Your task to perform on an android device: turn off sleep mode Image 0: 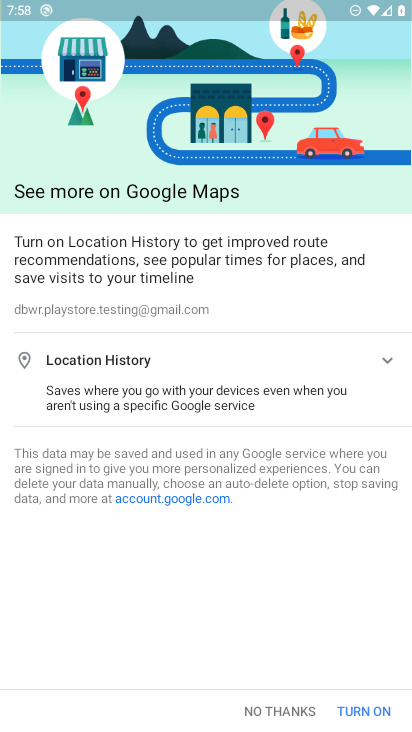
Step 0: press home button
Your task to perform on an android device: turn off sleep mode Image 1: 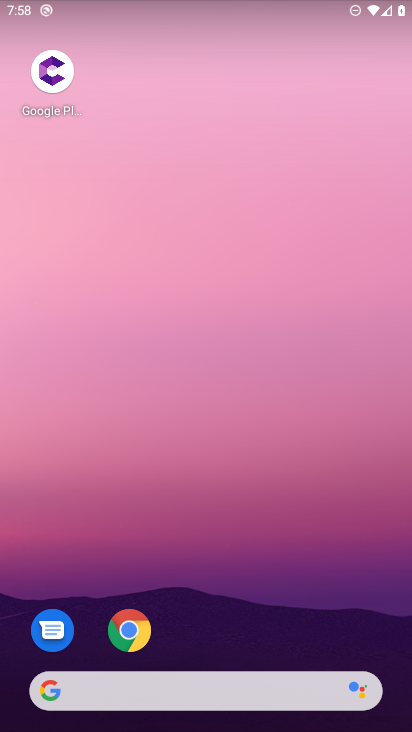
Step 1: drag from (294, 650) to (314, 340)
Your task to perform on an android device: turn off sleep mode Image 2: 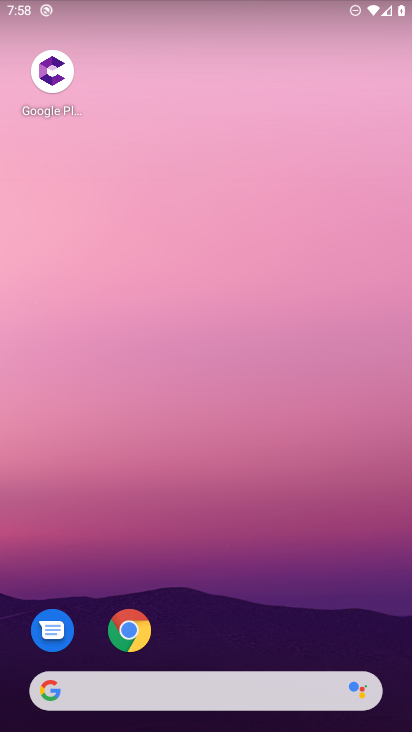
Step 2: drag from (194, 622) to (248, 300)
Your task to perform on an android device: turn off sleep mode Image 3: 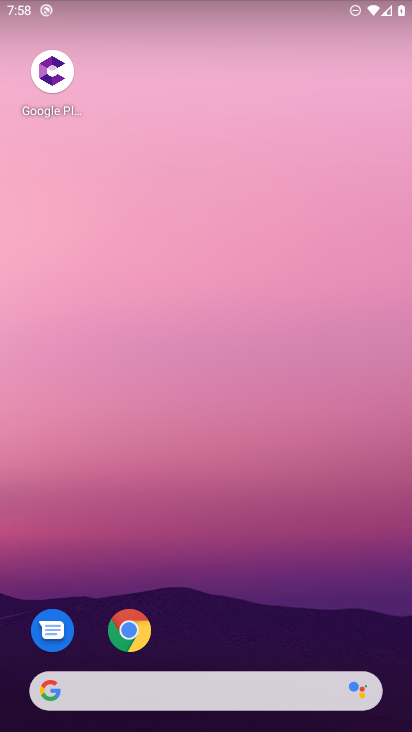
Step 3: drag from (135, 680) to (238, 105)
Your task to perform on an android device: turn off sleep mode Image 4: 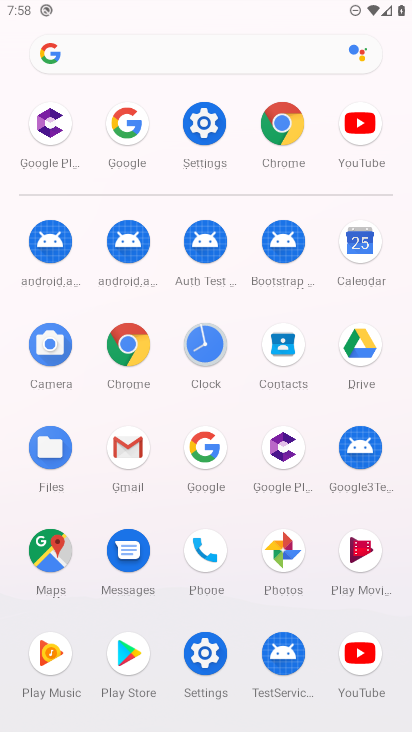
Step 4: click (191, 125)
Your task to perform on an android device: turn off sleep mode Image 5: 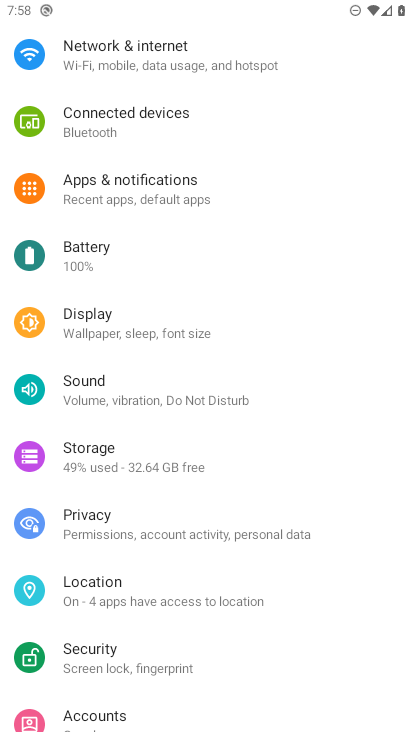
Step 5: click (168, 334)
Your task to perform on an android device: turn off sleep mode Image 6: 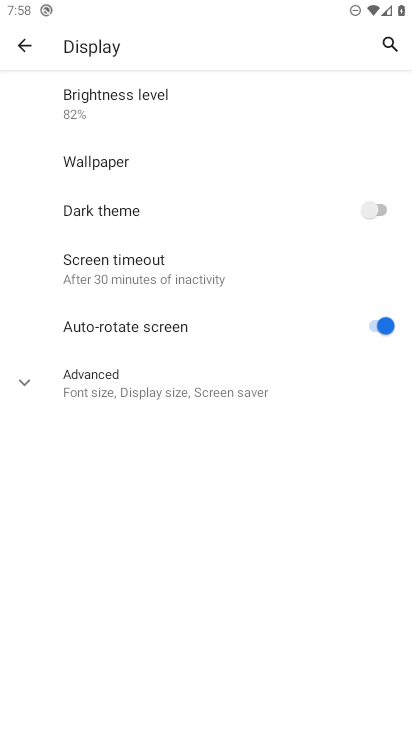
Step 6: click (158, 393)
Your task to perform on an android device: turn off sleep mode Image 7: 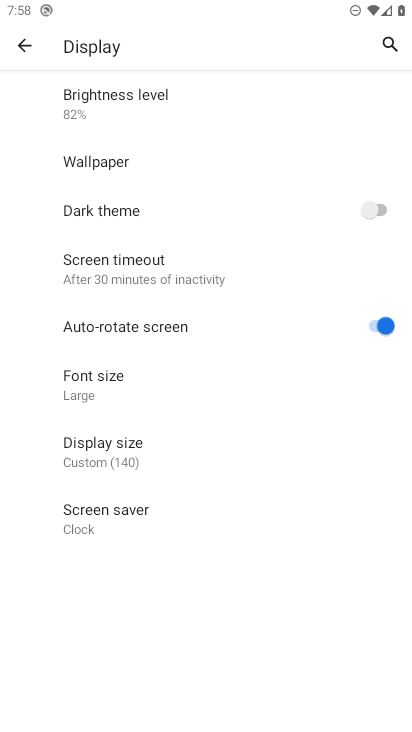
Step 7: click (122, 274)
Your task to perform on an android device: turn off sleep mode Image 8: 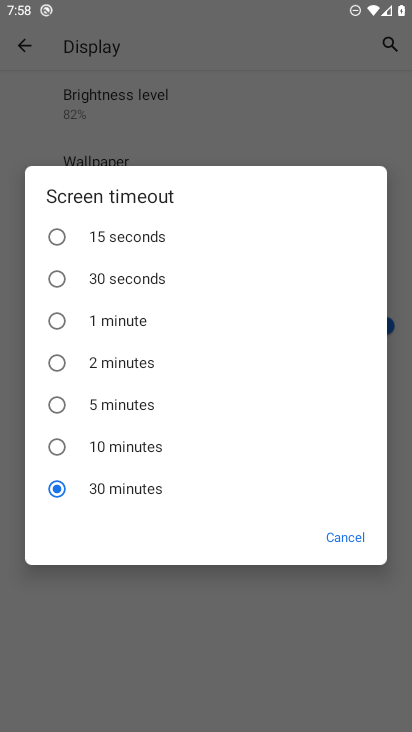
Step 8: click (122, 274)
Your task to perform on an android device: turn off sleep mode Image 9: 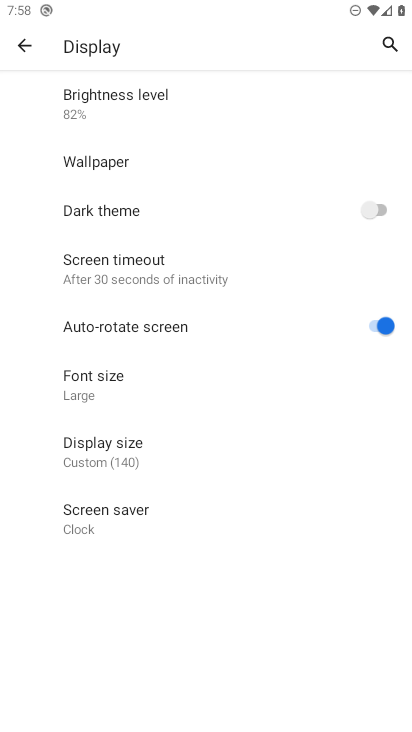
Step 9: task complete